Your task to perform on an android device: turn on the 12-hour format for clock Image 0: 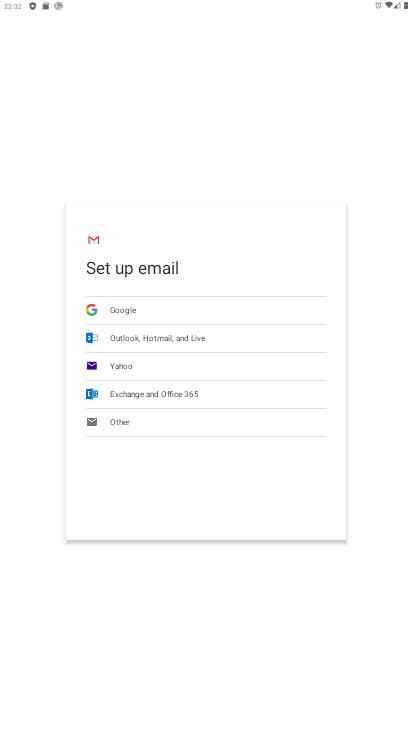
Step 0: press home button
Your task to perform on an android device: turn on the 12-hour format for clock Image 1: 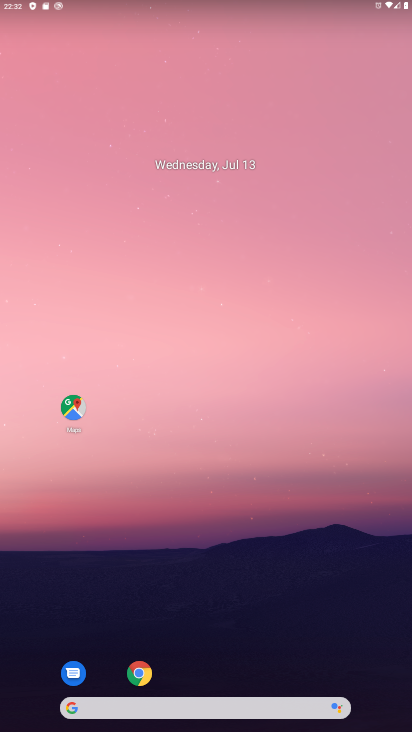
Step 1: drag from (199, 675) to (263, 295)
Your task to perform on an android device: turn on the 12-hour format for clock Image 2: 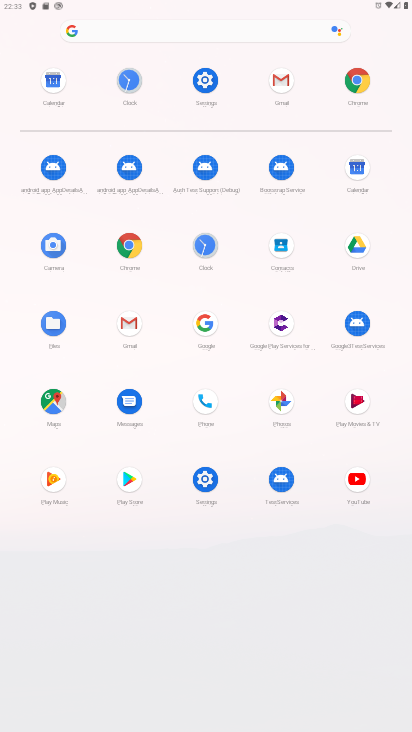
Step 2: click (208, 239)
Your task to perform on an android device: turn on the 12-hour format for clock Image 3: 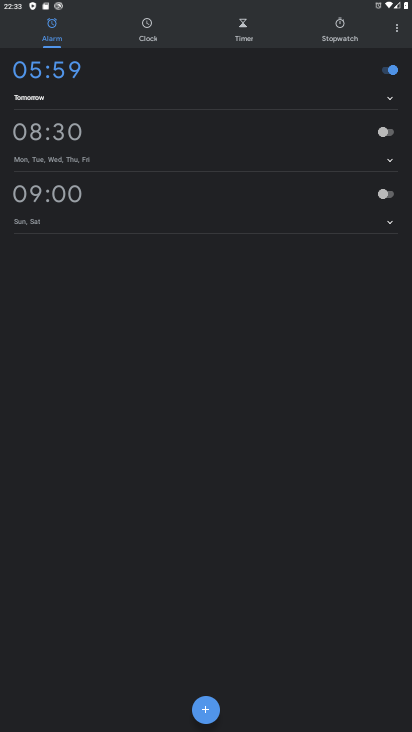
Step 3: click (394, 30)
Your task to perform on an android device: turn on the 12-hour format for clock Image 4: 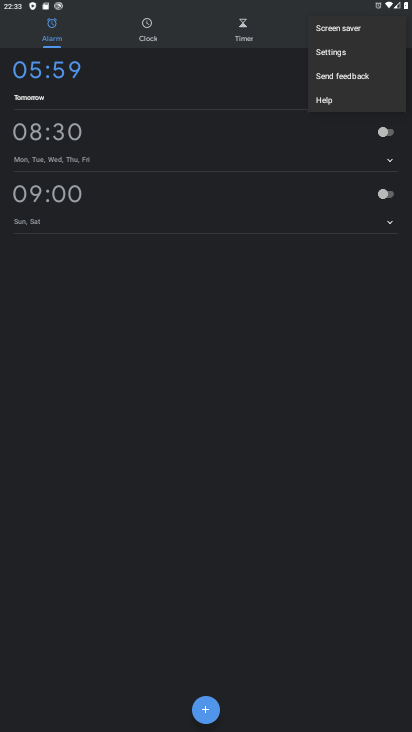
Step 4: click (331, 56)
Your task to perform on an android device: turn on the 12-hour format for clock Image 5: 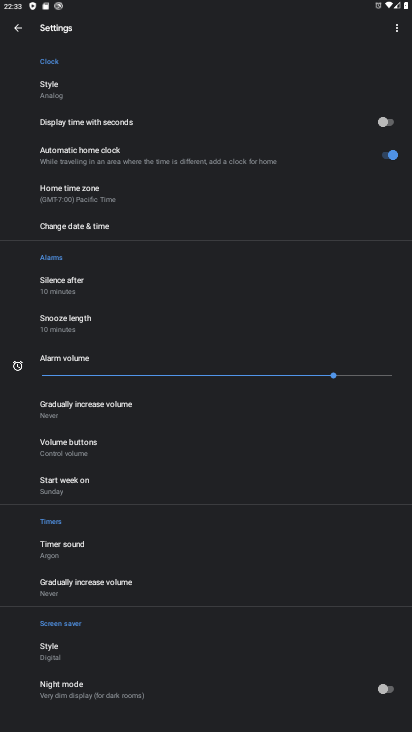
Step 5: click (87, 231)
Your task to perform on an android device: turn on the 12-hour format for clock Image 6: 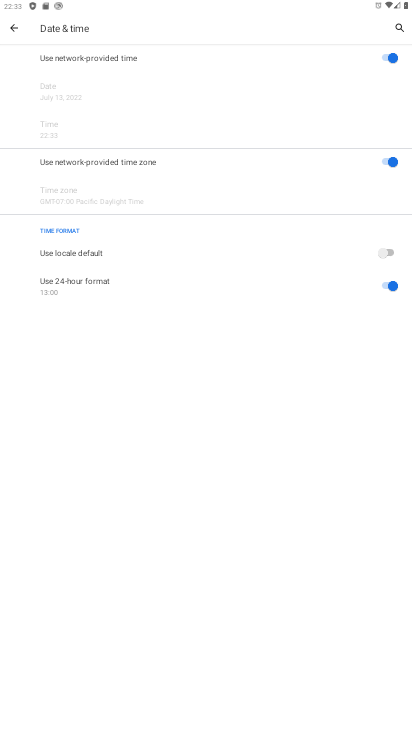
Step 6: task complete